Your task to perform on an android device: Search for vegetarian restaurants on Maps Image 0: 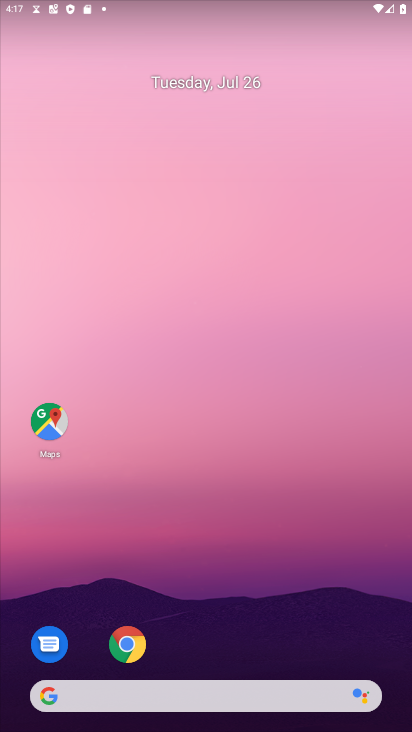
Step 0: click (40, 423)
Your task to perform on an android device: Search for vegetarian restaurants on Maps Image 1: 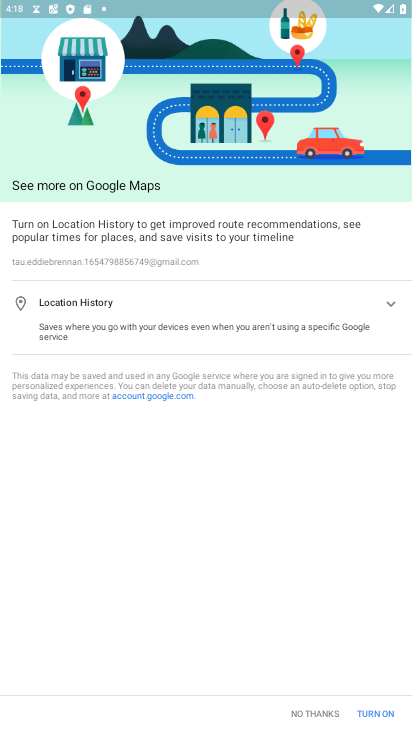
Step 1: click (324, 711)
Your task to perform on an android device: Search for vegetarian restaurants on Maps Image 2: 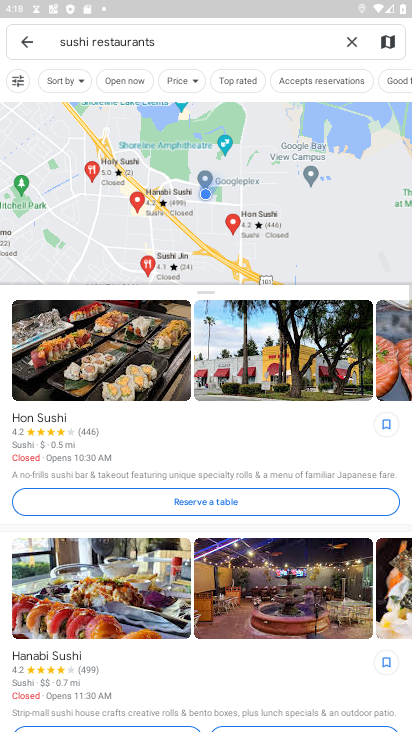
Step 2: click (347, 45)
Your task to perform on an android device: Search for vegetarian restaurants on Maps Image 3: 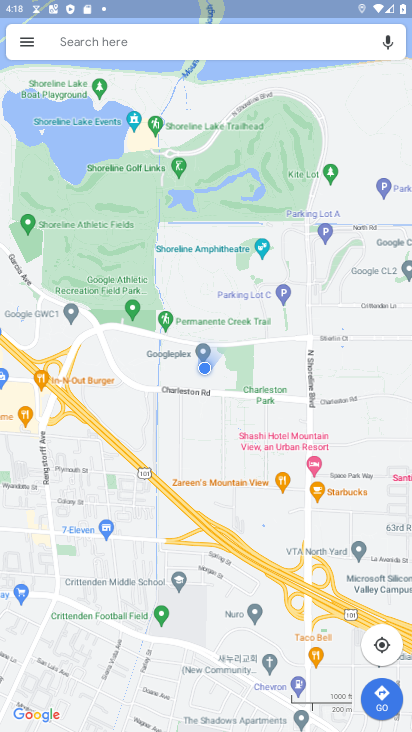
Step 3: click (270, 40)
Your task to perform on an android device: Search for vegetarian restaurants on Maps Image 4: 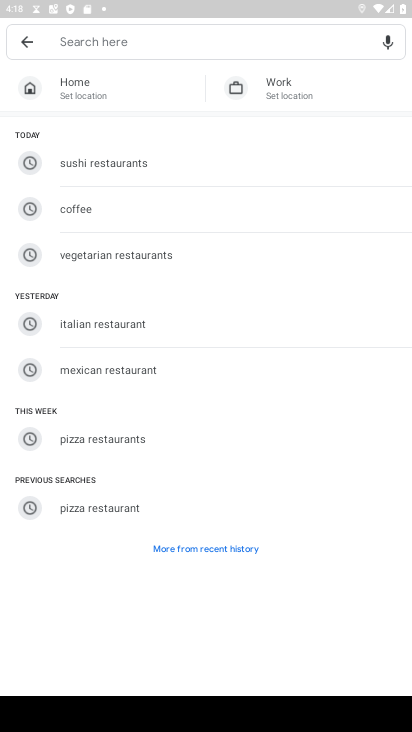
Step 4: click (217, 269)
Your task to perform on an android device: Search for vegetarian restaurants on Maps Image 5: 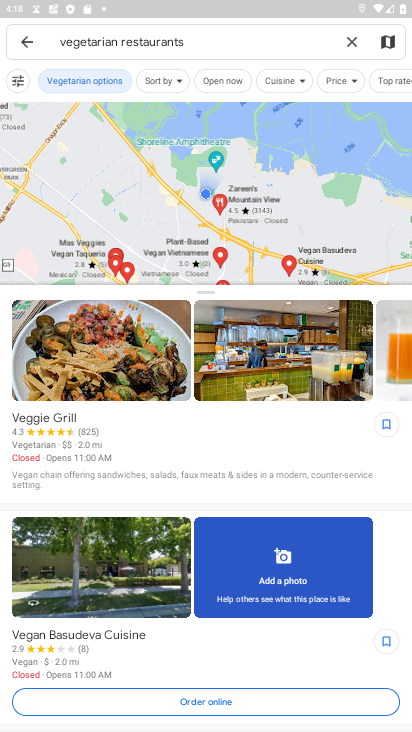
Step 5: task complete